Your task to perform on an android device: Go to CNN.com Image 0: 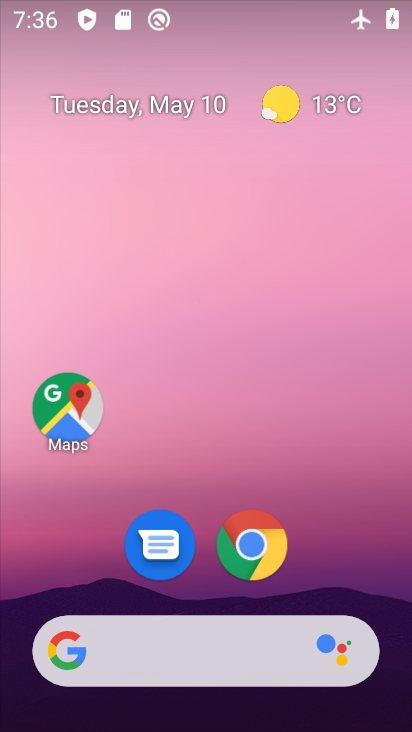
Step 0: press home button
Your task to perform on an android device: Go to CNN.com Image 1: 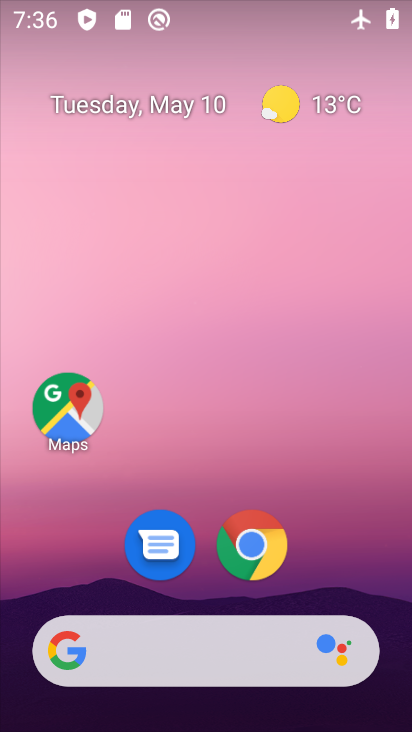
Step 1: click (252, 544)
Your task to perform on an android device: Go to CNN.com Image 2: 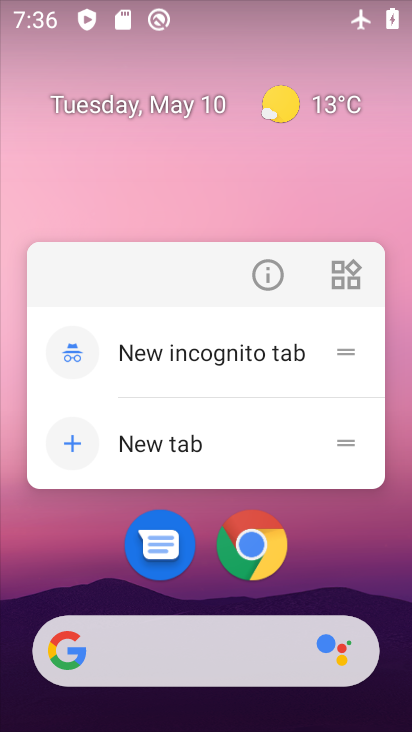
Step 2: click (252, 544)
Your task to perform on an android device: Go to CNN.com Image 3: 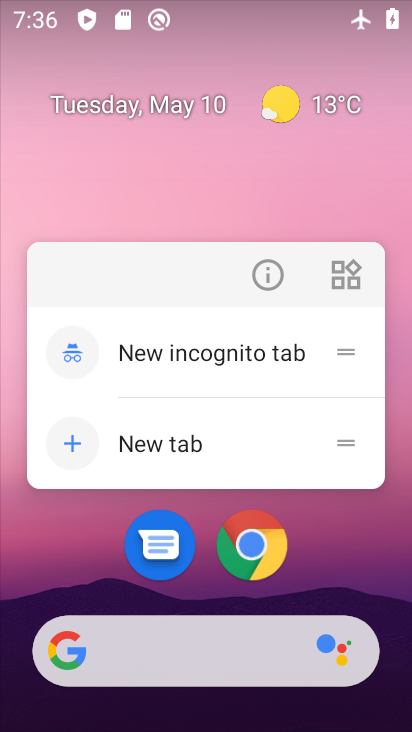
Step 3: click (252, 543)
Your task to perform on an android device: Go to CNN.com Image 4: 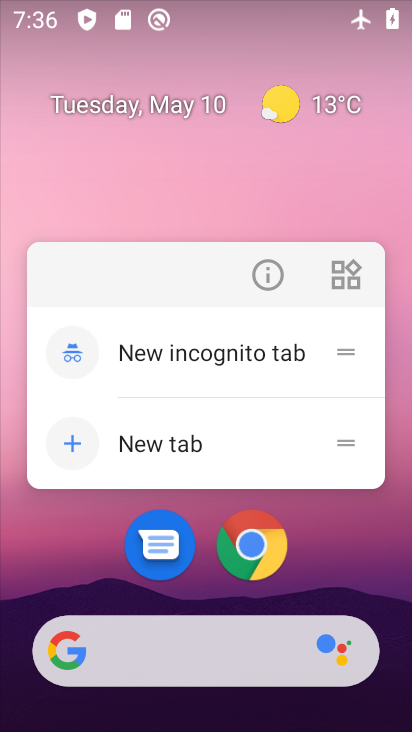
Step 4: click (326, 539)
Your task to perform on an android device: Go to CNN.com Image 5: 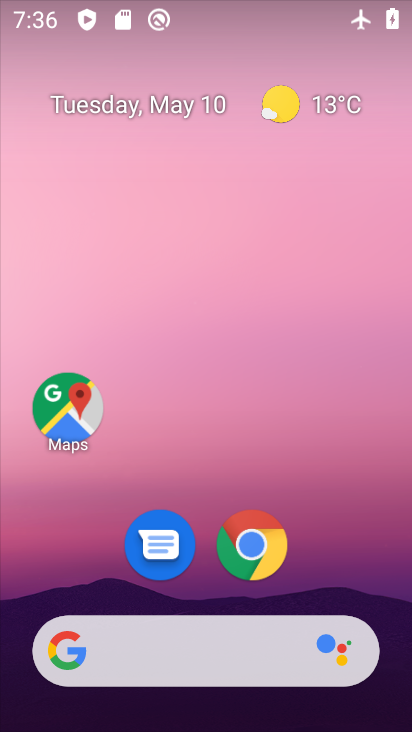
Step 5: click (258, 539)
Your task to perform on an android device: Go to CNN.com Image 6: 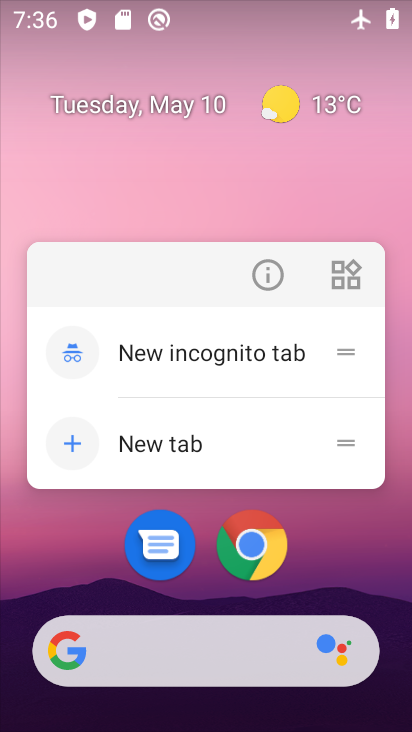
Step 6: click (259, 550)
Your task to perform on an android device: Go to CNN.com Image 7: 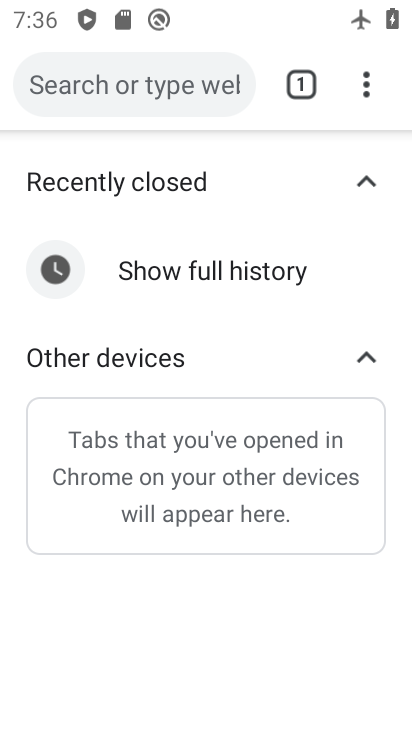
Step 7: click (299, 82)
Your task to perform on an android device: Go to CNN.com Image 8: 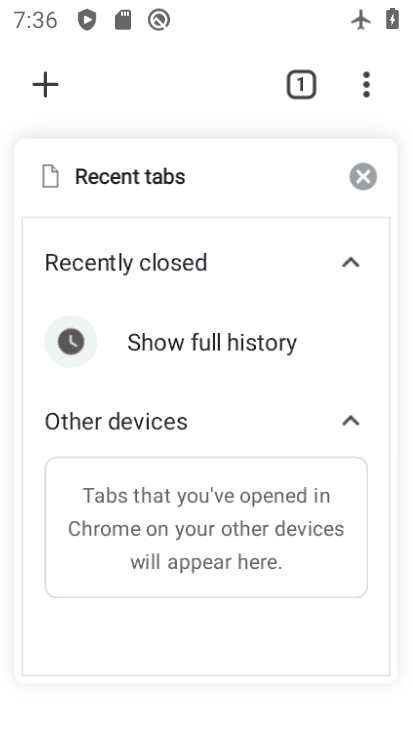
Step 8: click (360, 172)
Your task to perform on an android device: Go to CNN.com Image 9: 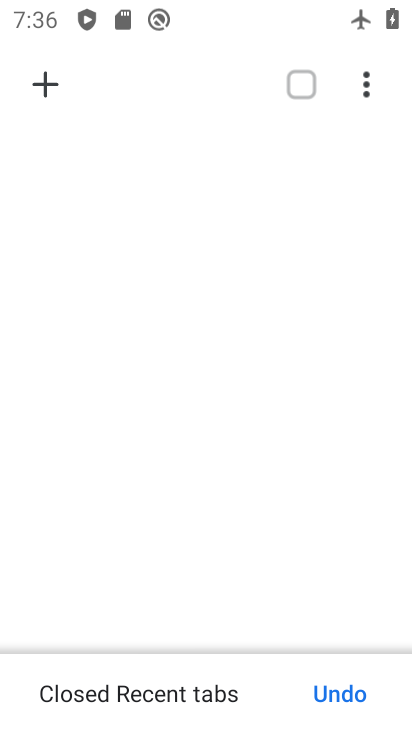
Step 9: click (44, 81)
Your task to perform on an android device: Go to CNN.com Image 10: 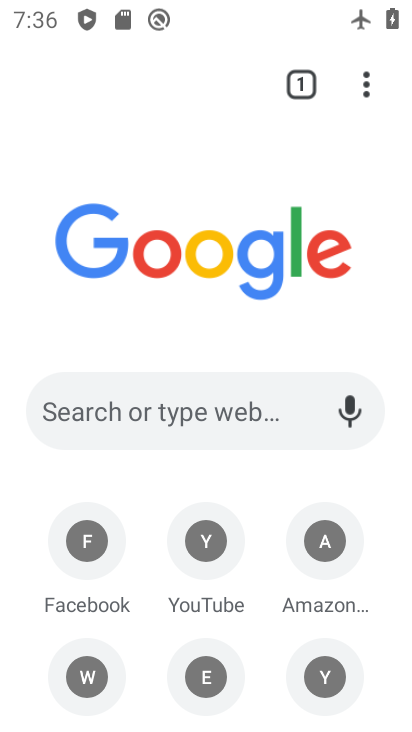
Step 10: click (114, 411)
Your task to perform on an android device: Go to CNN.com Image 11: 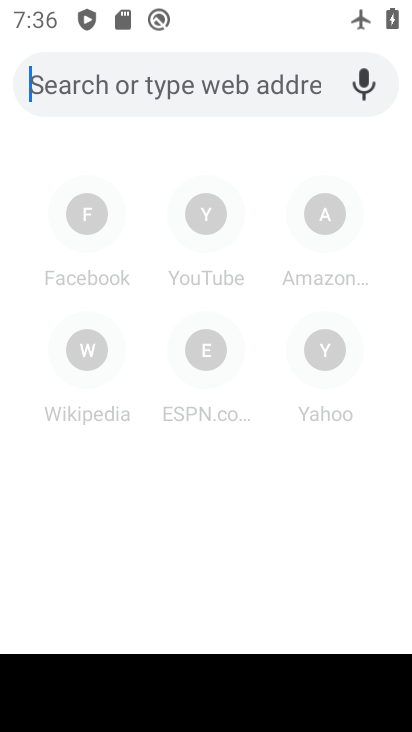
Step 11: type "cnn.com"
Your task to perform on an android device: Go to CNN.com Image 12: 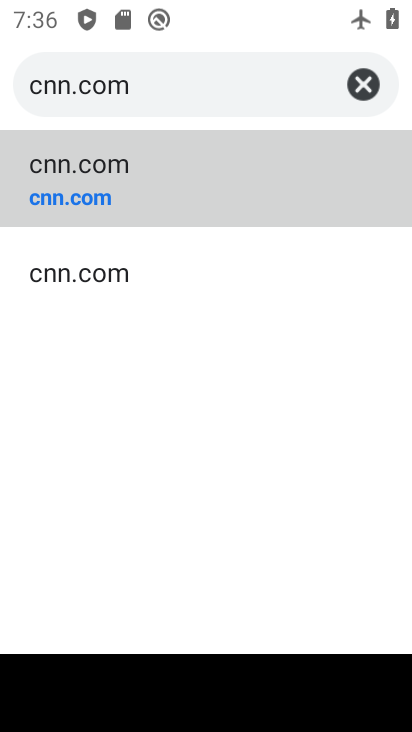
Step 12: click (111, 191)
Your task to perform on an android device: Go to CNN.com Image 13: 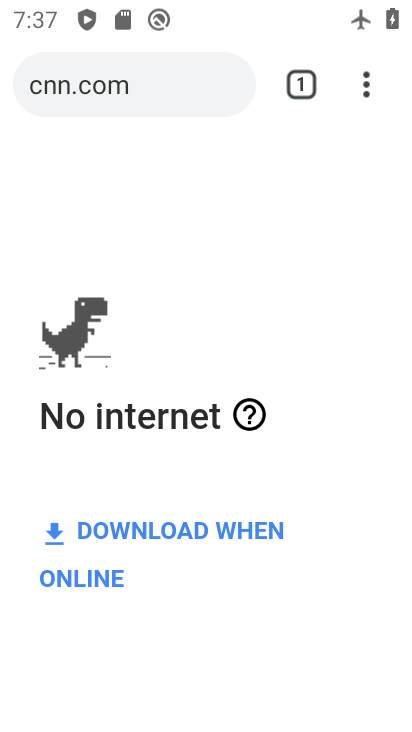
Step 13: task complete